Your task to perform on an android device: move an email to a new category in the gmail app Image 0: 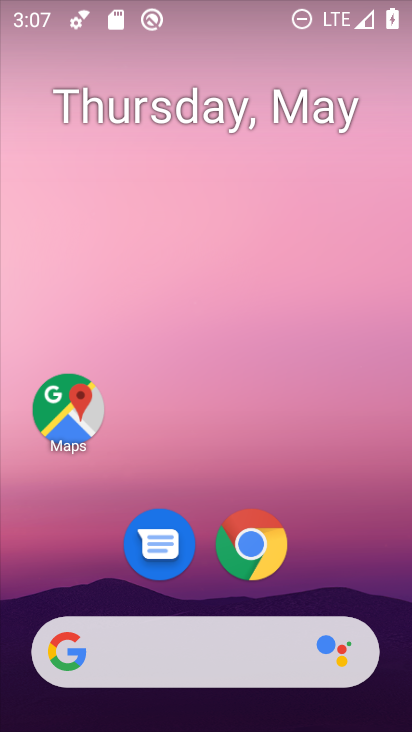
Step 0: drag from (95, 561) to (218, 137)
Your task to perform on an android device: move an email to a new category in the gmail app Image 1: 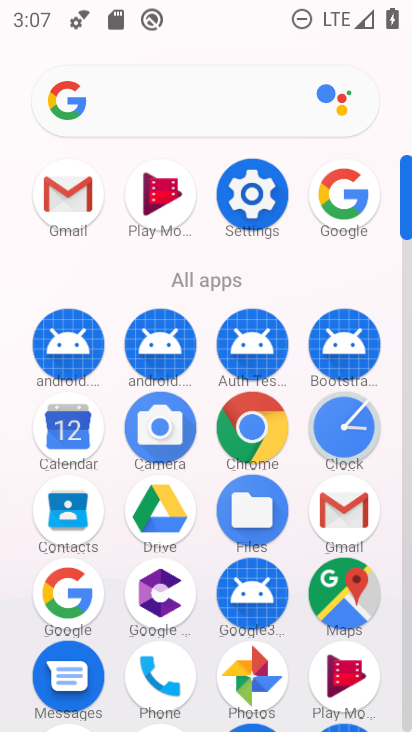
Step 1: click (360, 525)
Your task to perform on an android device: move an email to a new category in the gmail app Image 2: 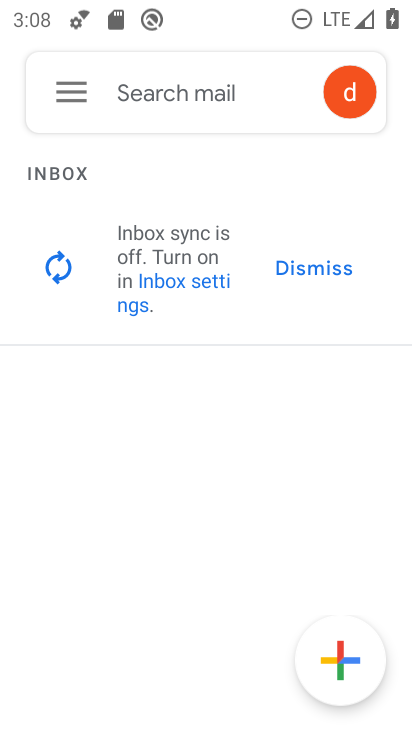
Step 2: click (66, 90)
Your task to perform on an android device: move an email to a new category in the gmail app Image 3: 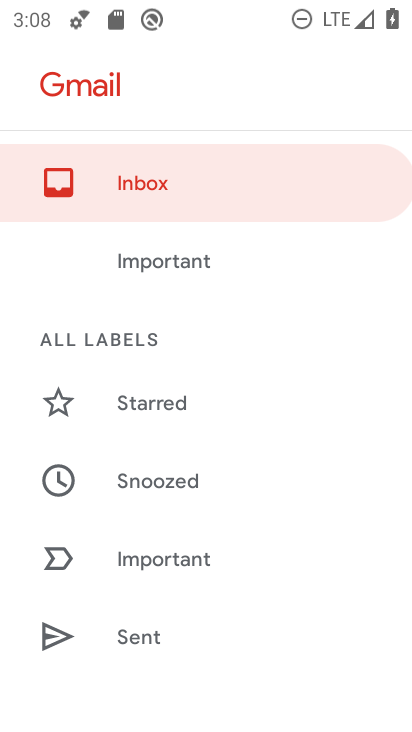
Step 3: drag from (141, 683) to (325, 184)
Your task to perform on an android device: move an email to a new category in the gmail app Image 4: 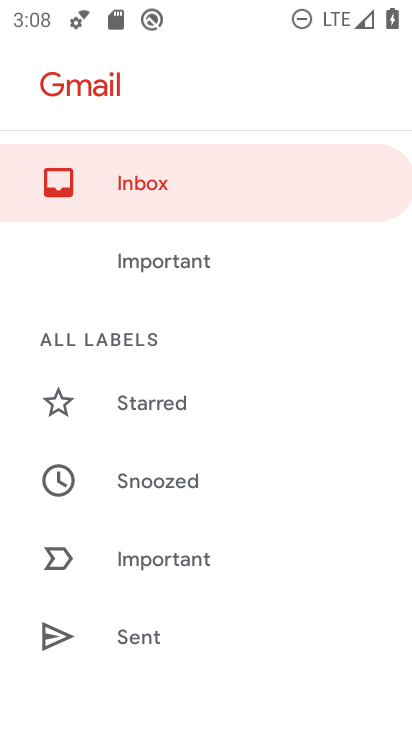
Step 4: drag from (243, 559) to (350, 168)
Your task to perform on an android device: move an email to a new category in the gmail app Image 5: 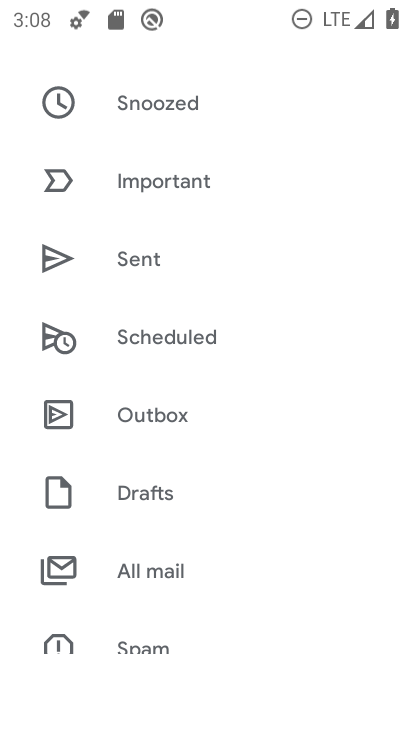
Step 5: click (171, 582)
Your task to perform on an android device: move an email to a new category in the gmail app Image 6: 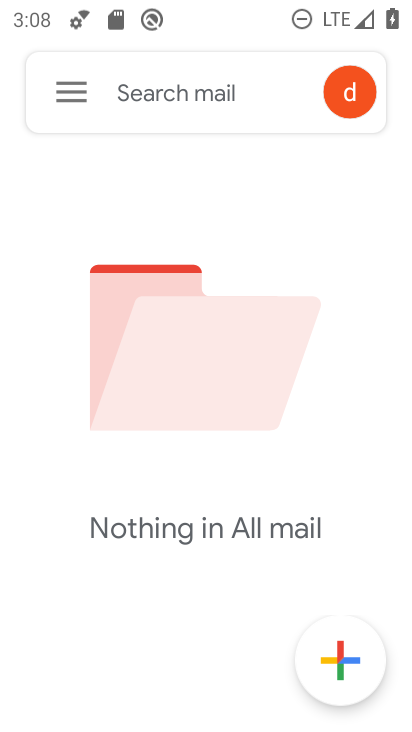
Step 6: task complete